Your task to perform on an android device: toggle airplane mode Image 0: 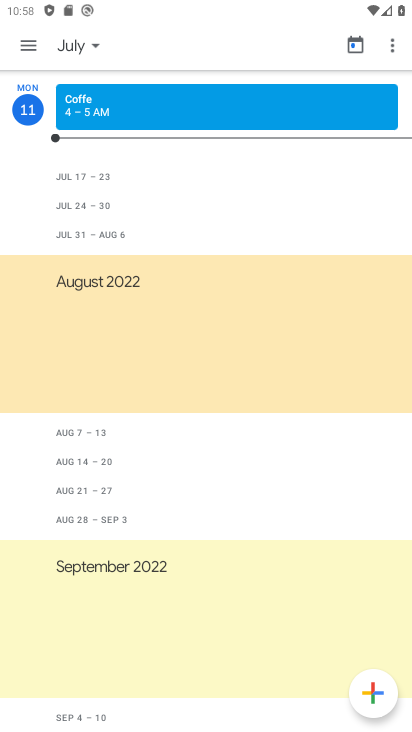
Step 0: drag from (160, 7) to (182, 616)
Your task to perform on an android device: toggle airplane mode Image 1: 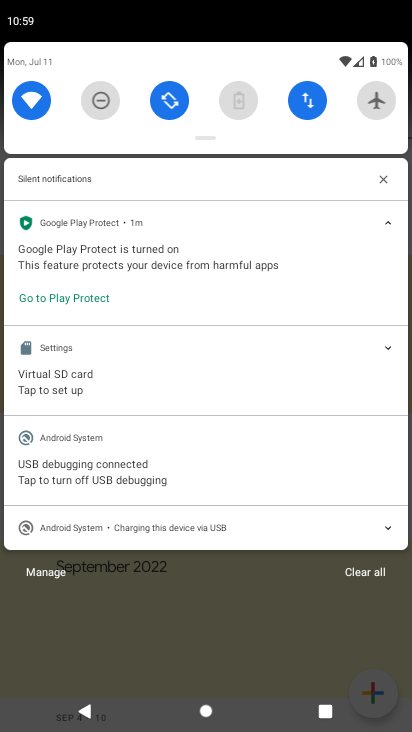
Step 1: click (362, 98)
Your task to perform on an android device: toggle airplane mode Image 2: 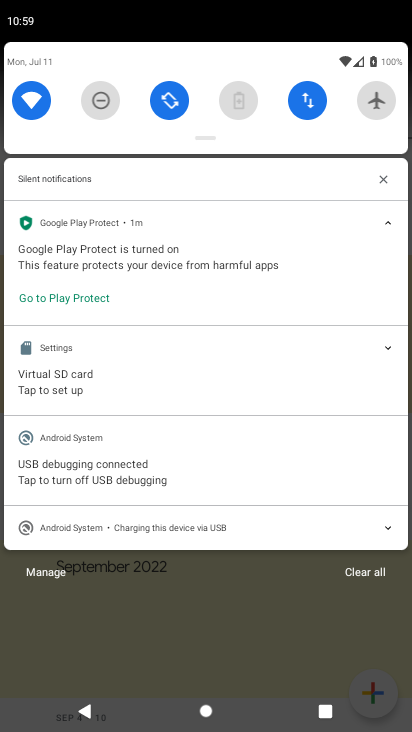
Step 2: click (362, 98)
Your task to perform on an android device: toggle airplane mode Image 3: 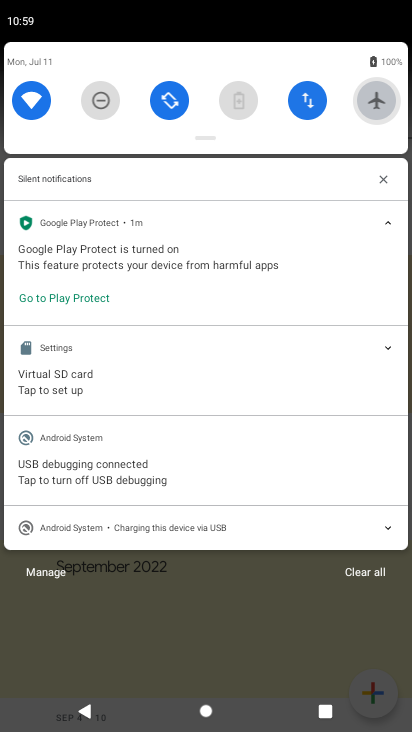
Step 3: click (362, 98)
Your task to perform on an android device: toggle airplane mode Image 4: 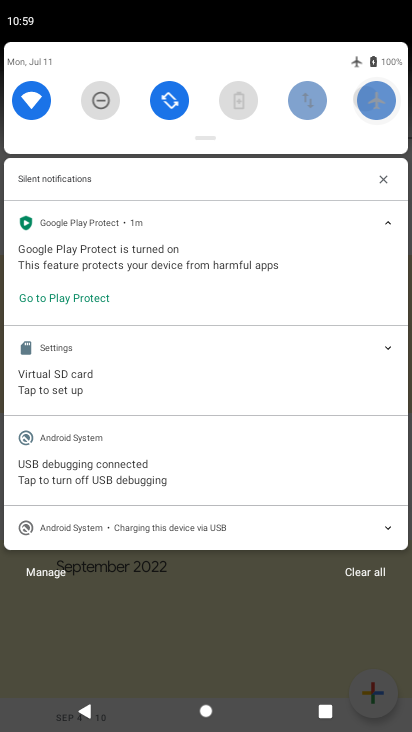
Step 4: click (362, 98)
Your task to perform on an android device: toggle airplane mode Image 5: 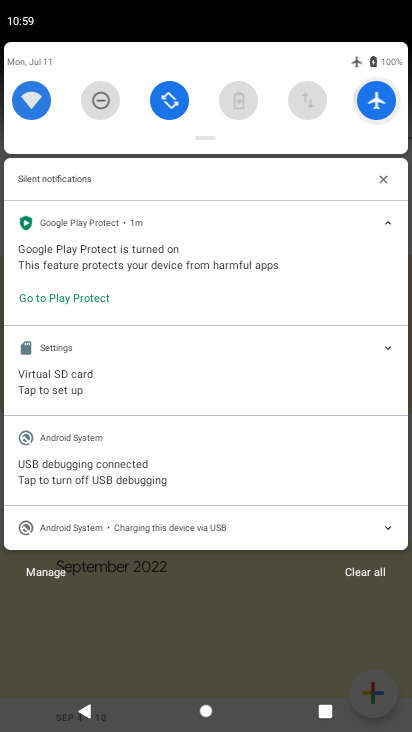
Step 5: click (362, 98)
Your task to perform on an android device: toggle airplane mode Image 6: 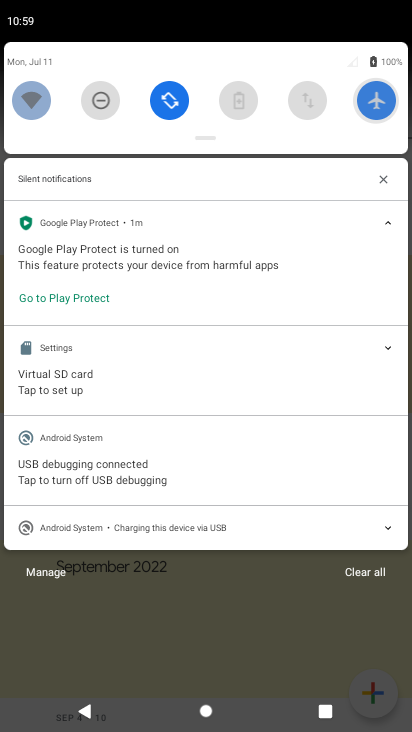
Step 6: click (362, 98)
Your task to perform on an android device: toggle airplane mode Image 7: 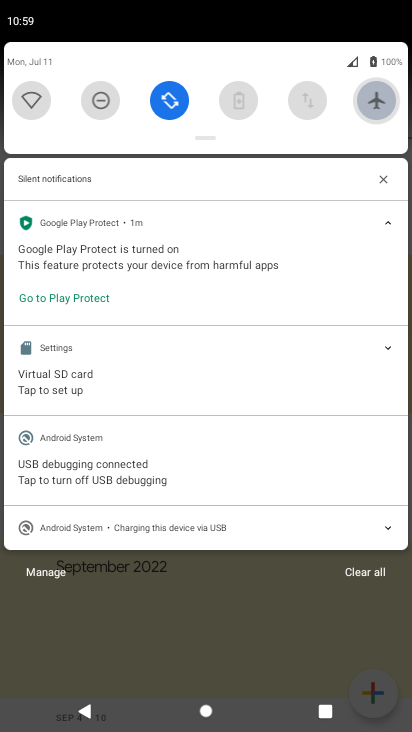
Step 7: click (362, 98)
Your task to perform on an android device: toggle airplane mode Image 8: 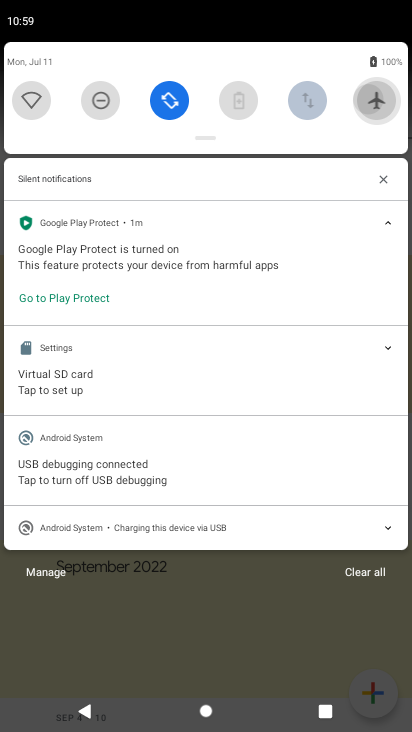
Step 8: click (362, 98)
Your task to perform on an android device: toggle airplane mode Image 9: 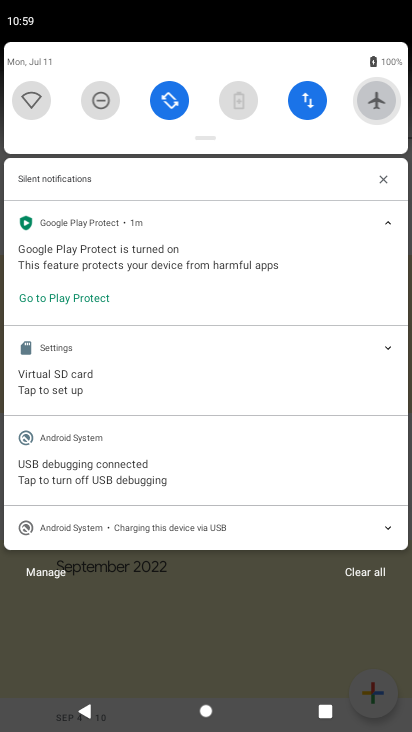
Step 9: click (362, 98)
Your task to perform on an android device: toggle airplane mode Image 10: 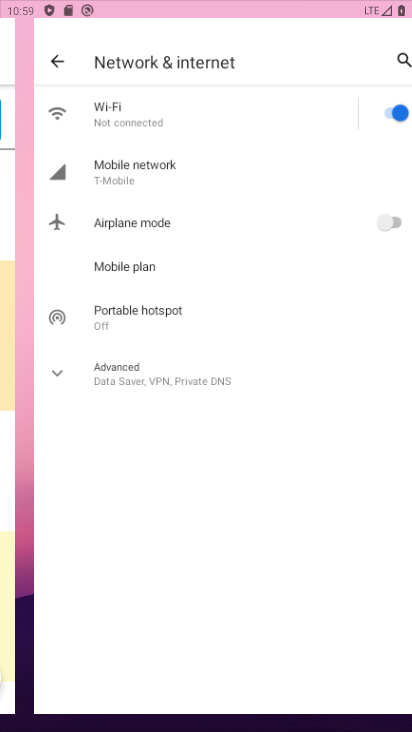
Step 10: task complete